Your task to perform on an android device: change the clock display to show seconds Image 0: 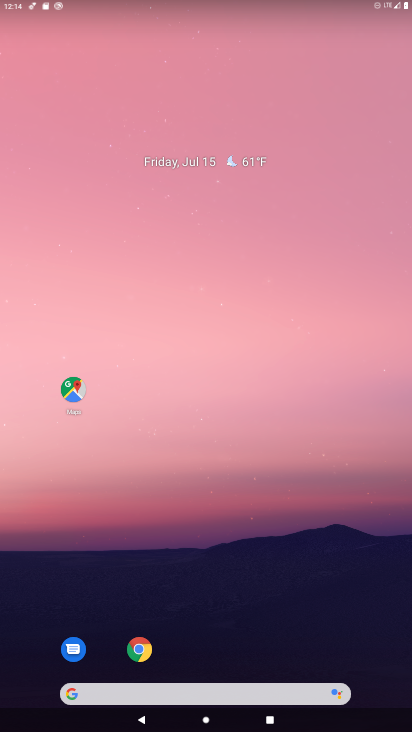
Step 0: drag from (266, 642) to (305, 35)
Your task to perform on an android device: change the clock display to show seconds Image 1: 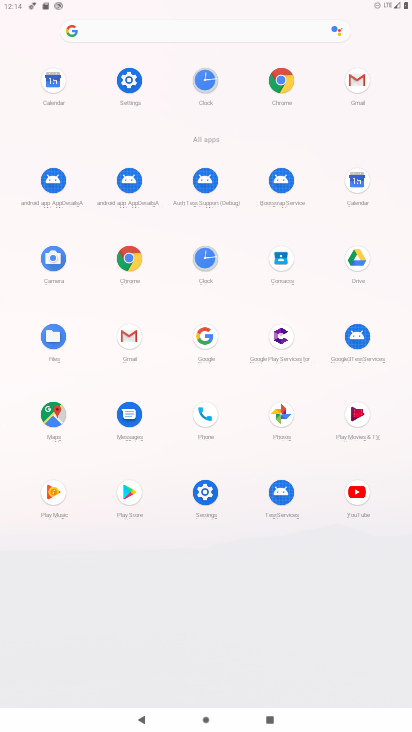
Step 1: click (209, 258)
Your task to perform on an android device: change the clock display to show seconds Image 2: 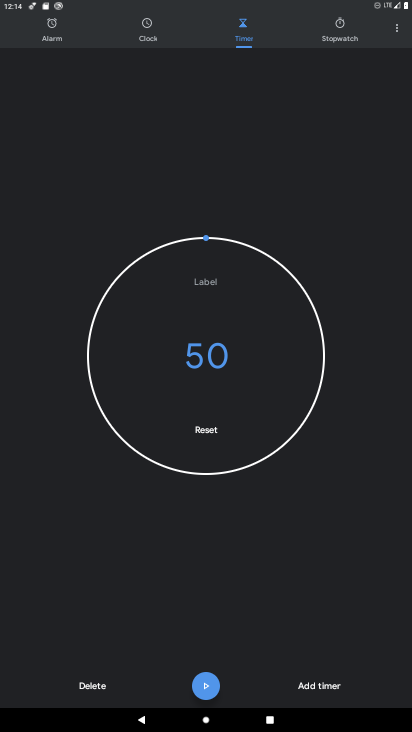
Step 2: click (399, 35)
Your task to perform on an android device: change the clock display to show seconds Image 3: 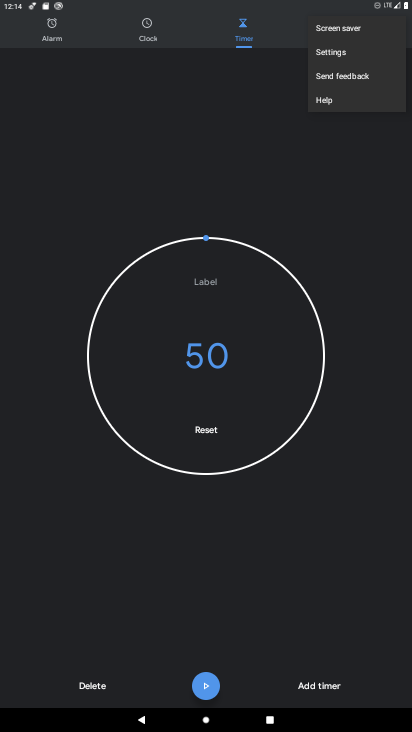
Step 3: click (361, 54)
Your task to perform on an android device: change the clock display to show seconds Image 4: 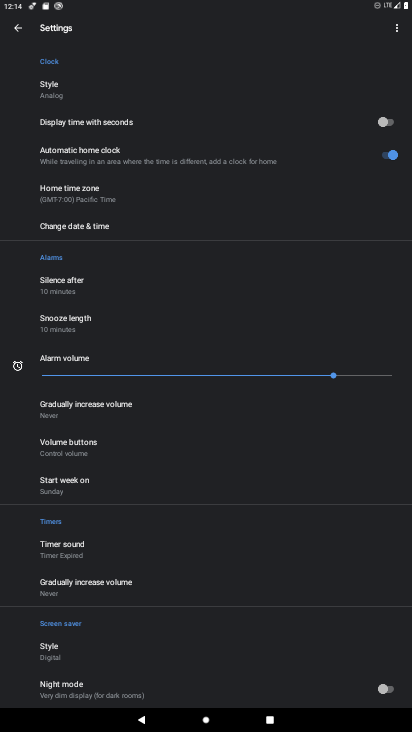
Step 4: click (387, 124)
Your task to perform on an android device: change the clock display to show seconds Image 5: 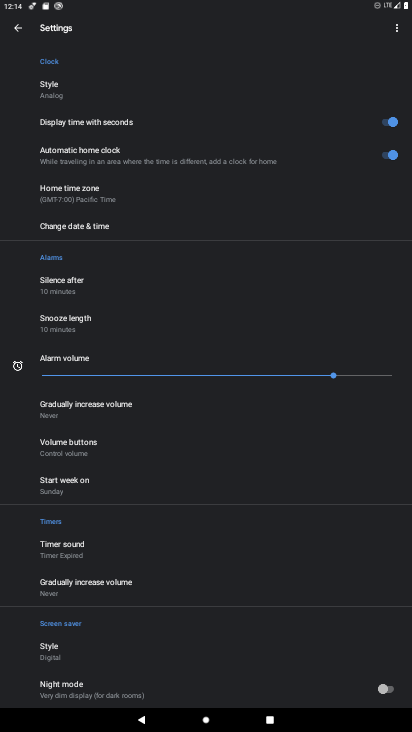
Step 5: task complete